Your task to perform on an android device: turn off data saver in the chrome app Image 0: 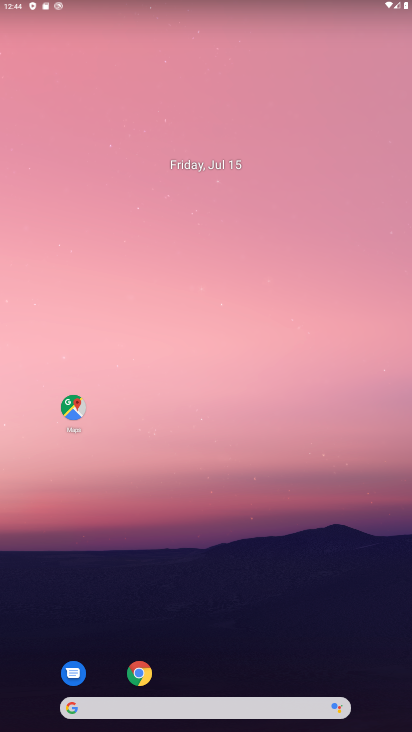
Step 0: drag from (252, 647) to (324, 95)
Your task to perform on an android device: turn off data saver in the chrome app Image 1: 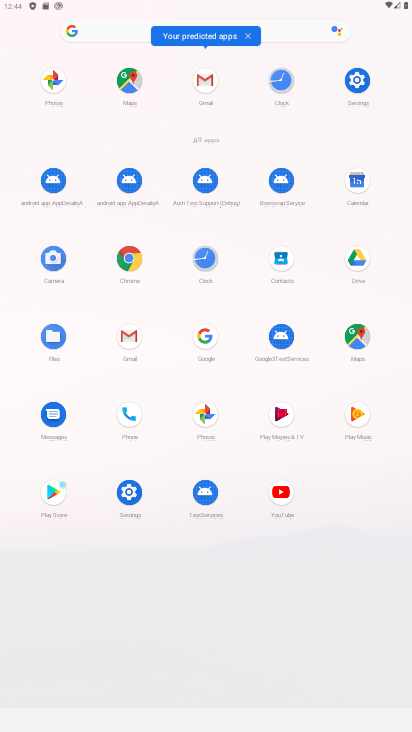
Step 1: click (136, 251)
Your task to perform on an android device: turn off data saver in the chrome app Image 2: 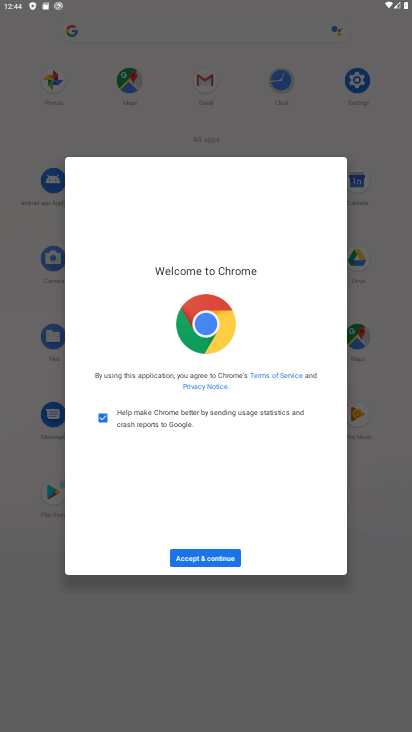
Step 2: click (182, 549)
Your task to perform on an android device: turn off data saver in the chrome app Image 3: 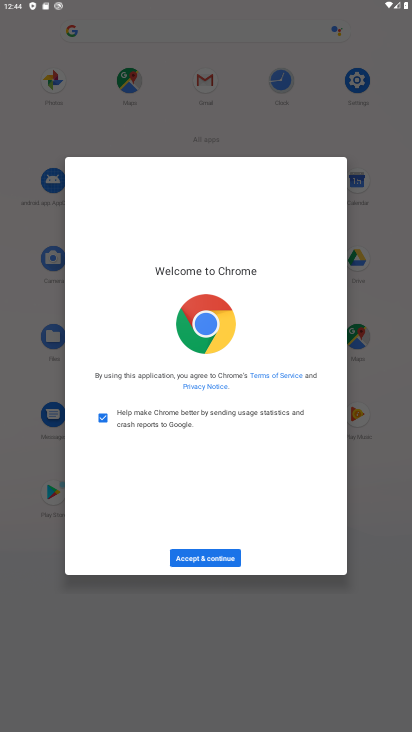
Step 3: click (186, 561)
Your task to perform on an android device: turn off data saver in the chrome app Image 4: 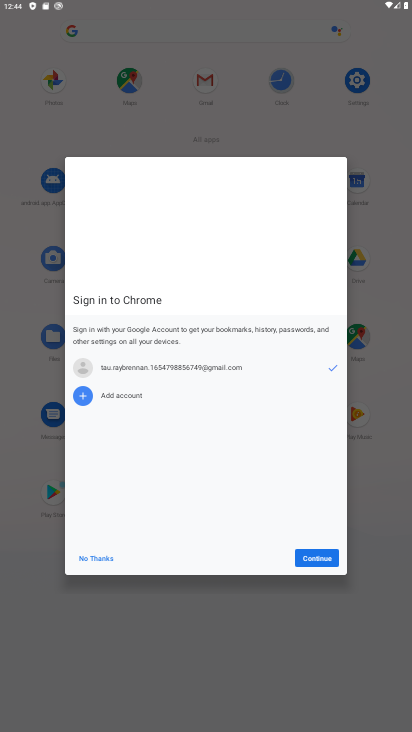
Step 4: click (104, 559)
Your task to perform on an android device: turn off data saver in the chrome app Image 5: 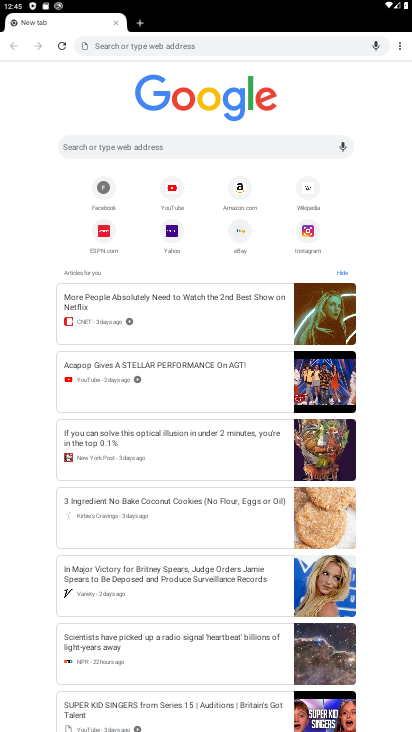
Step 5: drag from (401, 42) to (308, 214)
Your task to perform on an android device: turn off data saver in the chrome app Image 6: 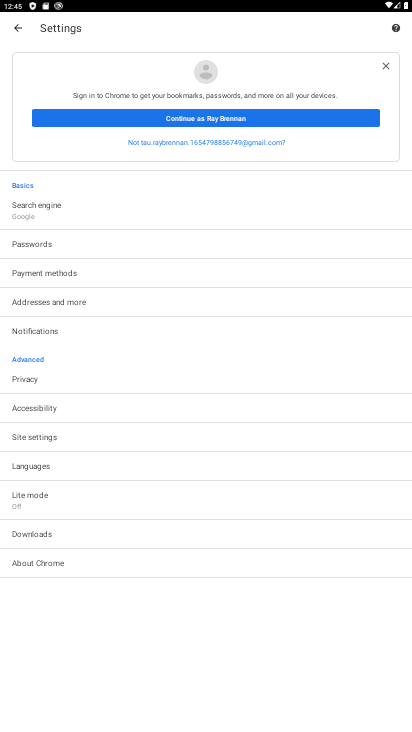
Step 6: click (18, 504)
Your task to perform on an android device: turn off data saver in the chrome app Image 7: 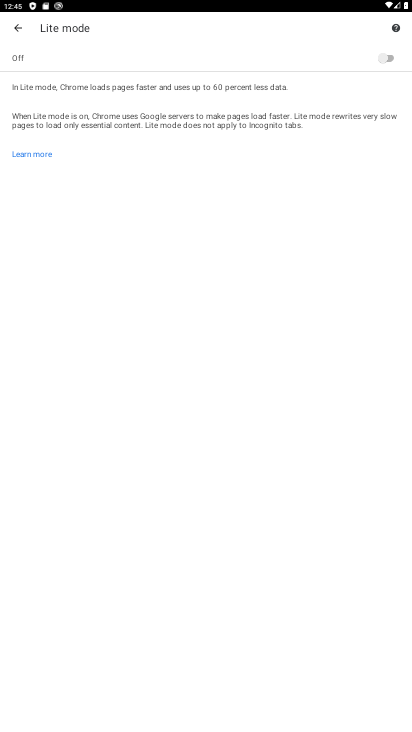
Step 7: task complete